Your task to perform on an android device: Open the stopwatch Image 0: 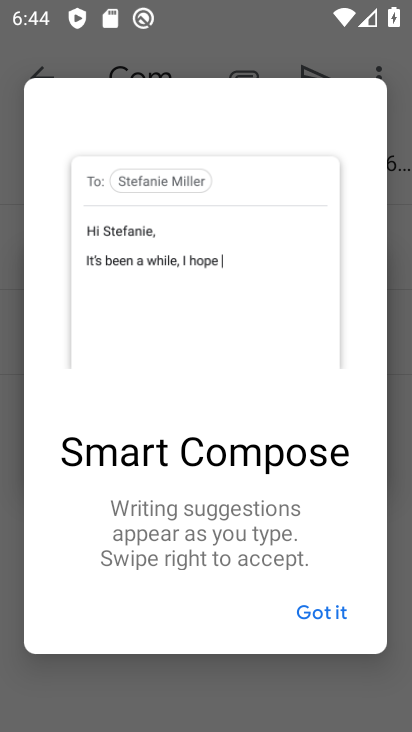
Step 0: press home button
Your task to perform on an android device: Open the stopwatch Image 1: 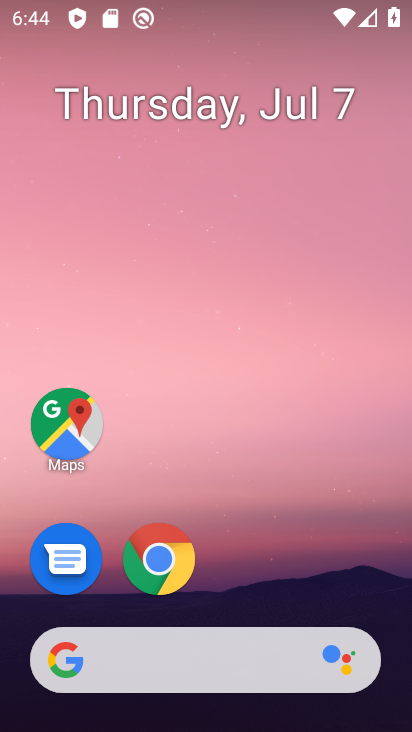
Step 1: drag from (350, 355) to (399, 81)
Your task to perform on an android device: Open the stopwatch Image 2: 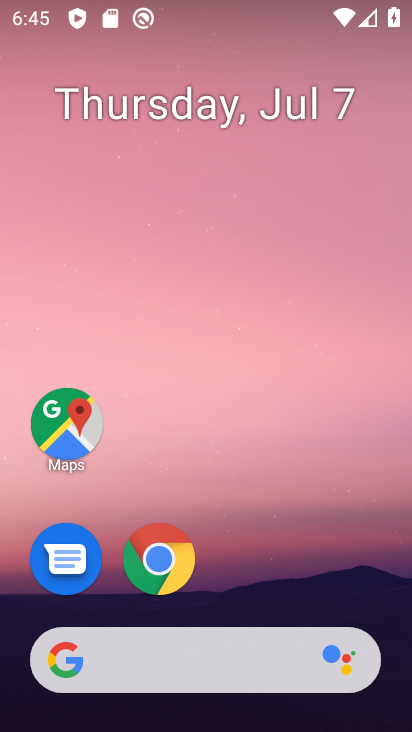
Step 2: drag from (259, 441) to (39, 1)
Your task to perform on an android device: Open the stopwatch Image 3: 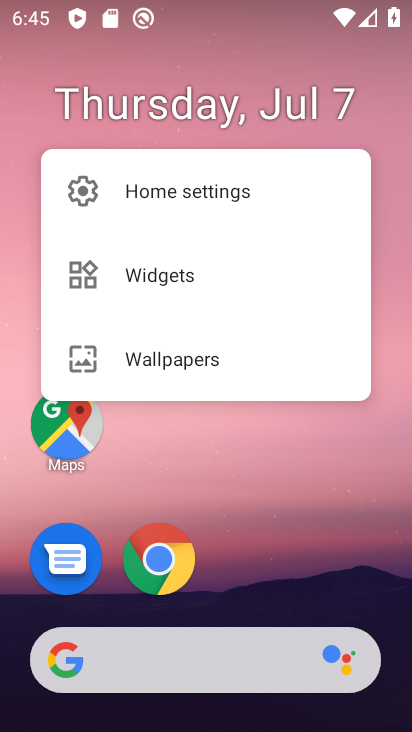
Step 3: click (266, 551)
Your task to perform on an android device: Open the stopwatch Image 4: 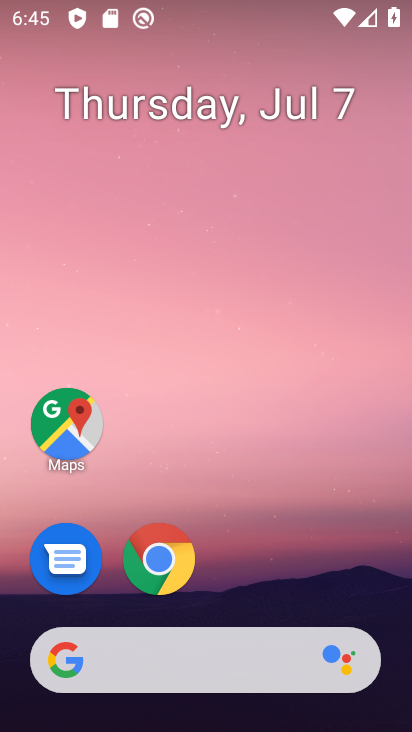
Step 4: click (266, 551)
Your task to perform on an android device: Open the stopwatch Image 5: 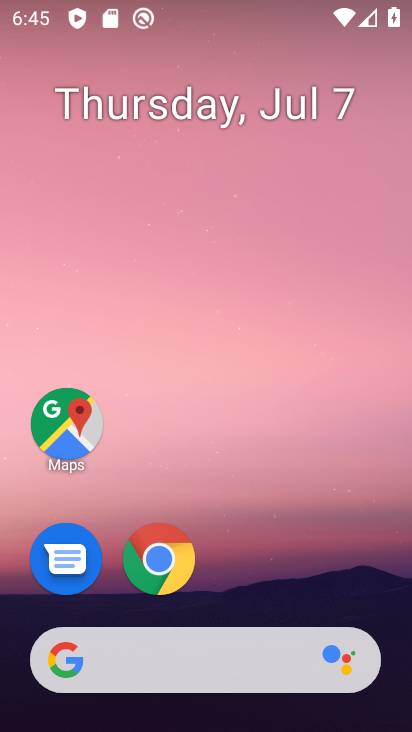
Step 5: drag from (281, 525) to (332, 156)
Your task to perform on an android device: Open the stopwatch Image 6: 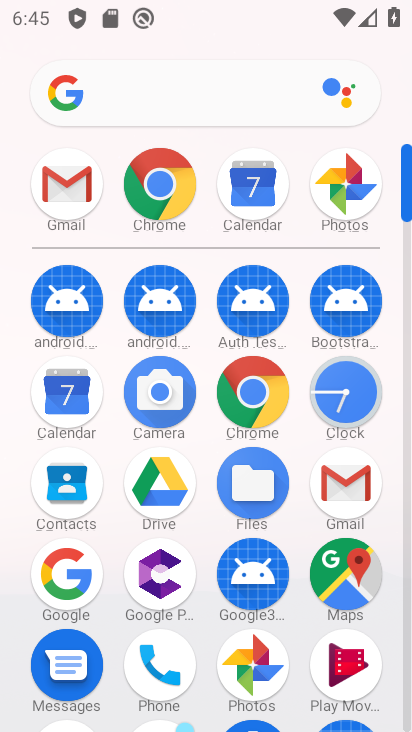
Step 6: click (360, 400)
Your task to perform on an android device: Open the stopwatch Image 7: 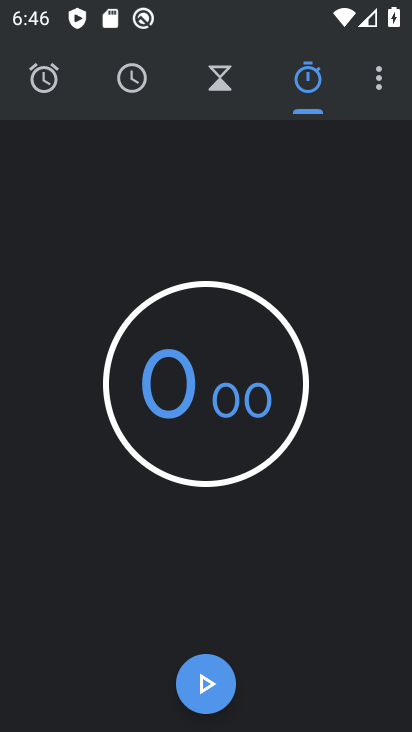
Step 7: task complete